Your task to perform on an android device: Open CNN.com Image 0: 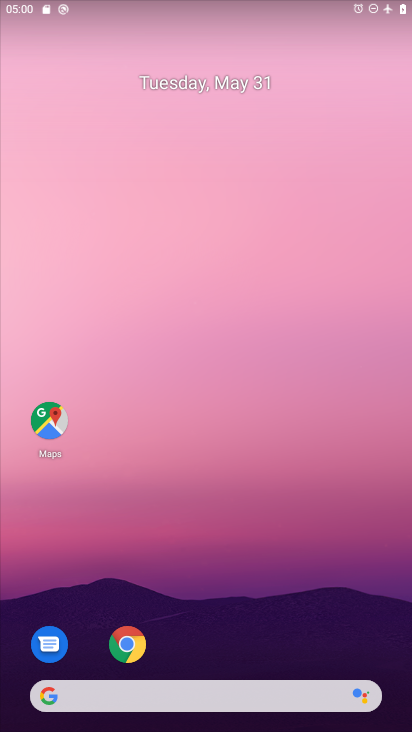
Step 0: click (129, 647)
Your task to perform on an android device: Open CNN.com Image 1: 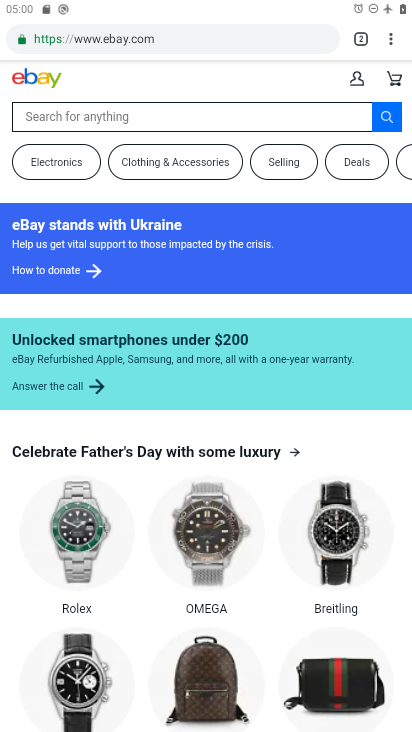
Step 1: click (157, 44)
Your task to perform on an android device: Open CNN.com Image 2: 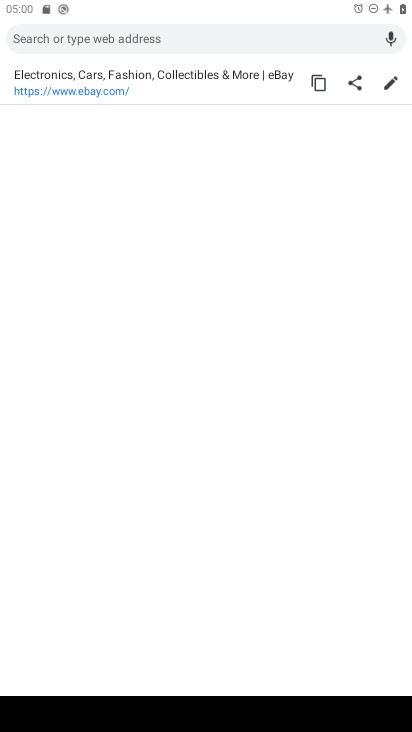
Step 2: type "cnn.com"
Your task to perform on an android device: Open CNN.com Image 3: 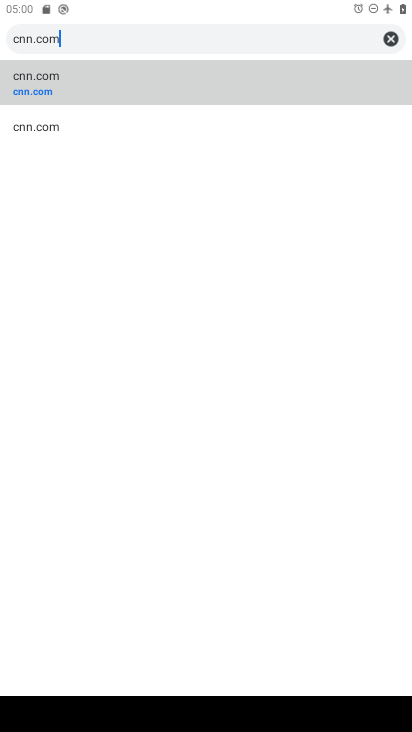
Step 3: click (22, 91)
Your task to perform on an android device: Open CNN.com Image 4: 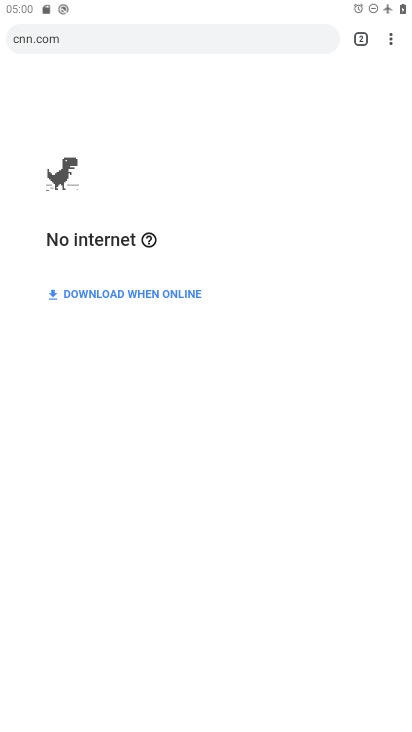
Step 4: task complete